Your task to perform on an android device: turn pop-ups off in chrome Image 0: 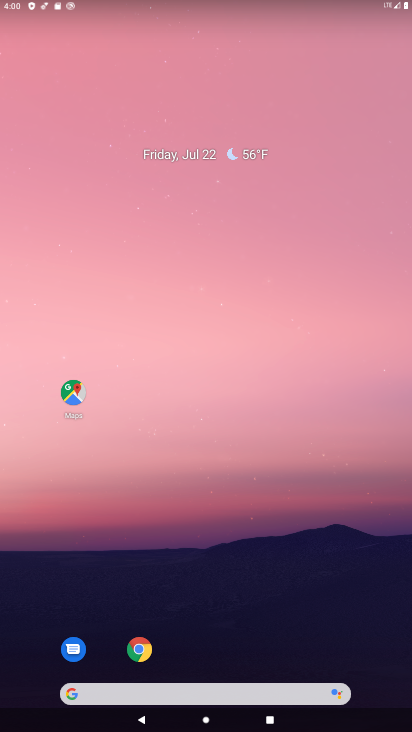
Step 0: drag from (223, 661) to (199, 105)
Your task to perform on an android device: turn pop-ups off in chrome Image 1: 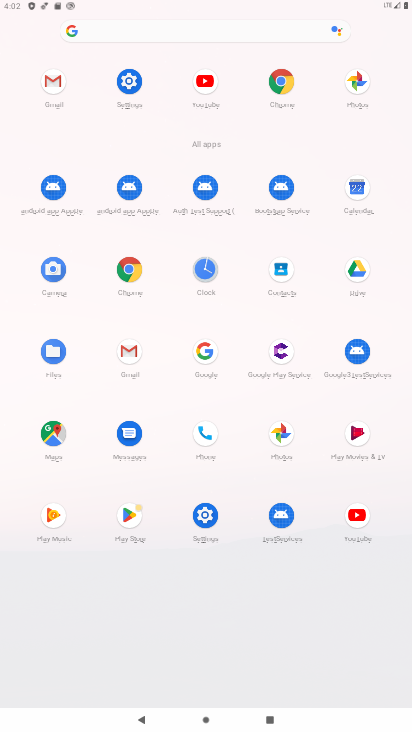
Step 1: click (275, 91)
Your task to perform on an android device: turn pop-ups off in chrome Image 2: 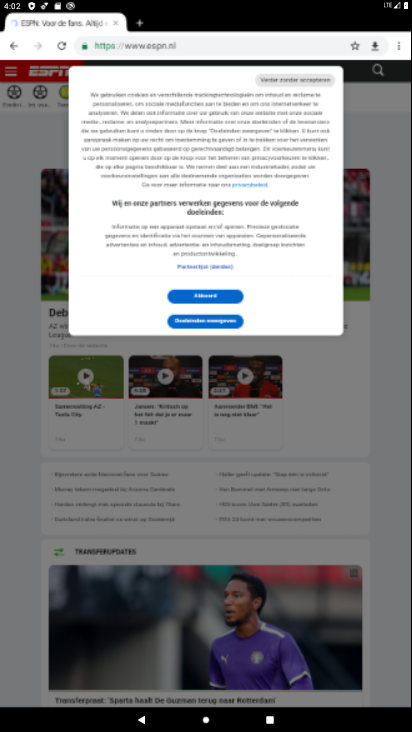
Step 2: click (273, 88)
Your task to perform on an android device: turn pop-ups off in chrome Image 3: 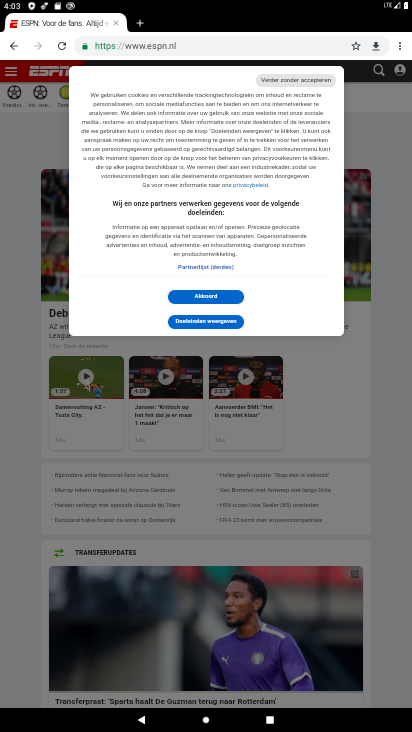
Step 3: task complete